Your task to perform on an android device: change timer sound Image 0: 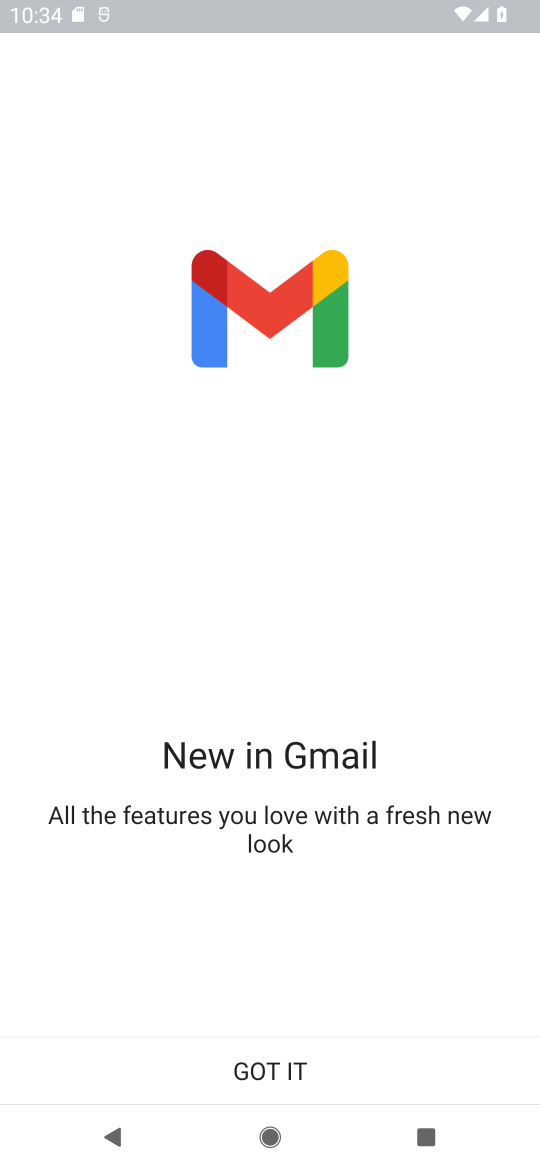
Step 0: press home button
Your task to perform on an android device: change timer sound Image 1: 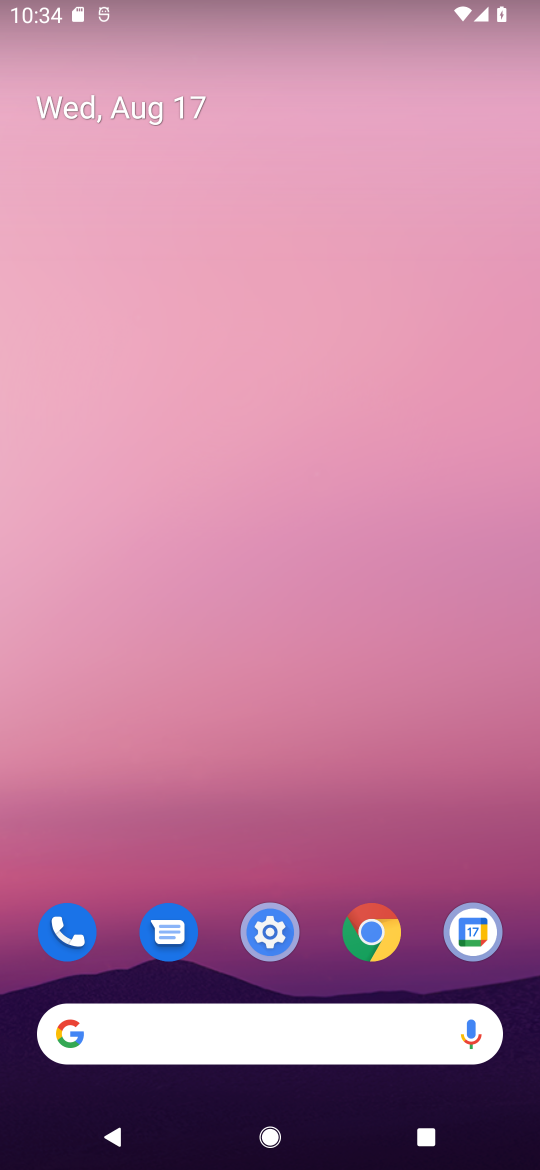
Step 1: drag from (316, 980) to (318, 211)
Your task to perform on an android device: change timer sound Image 2: 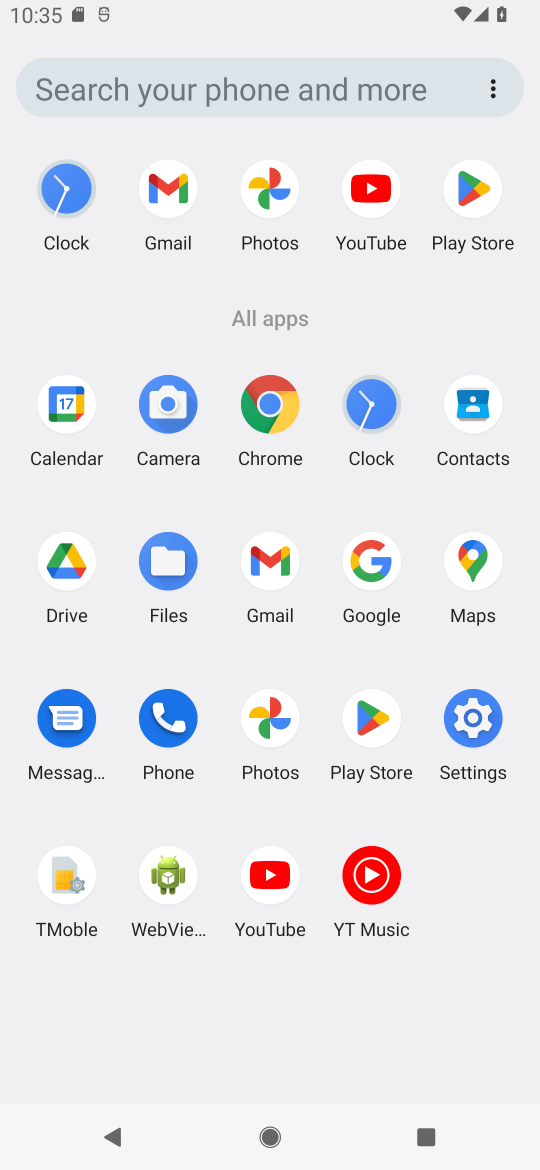
Step 2: click (363, 414)
Your task to perform on an android device: change timer sound Image 3: 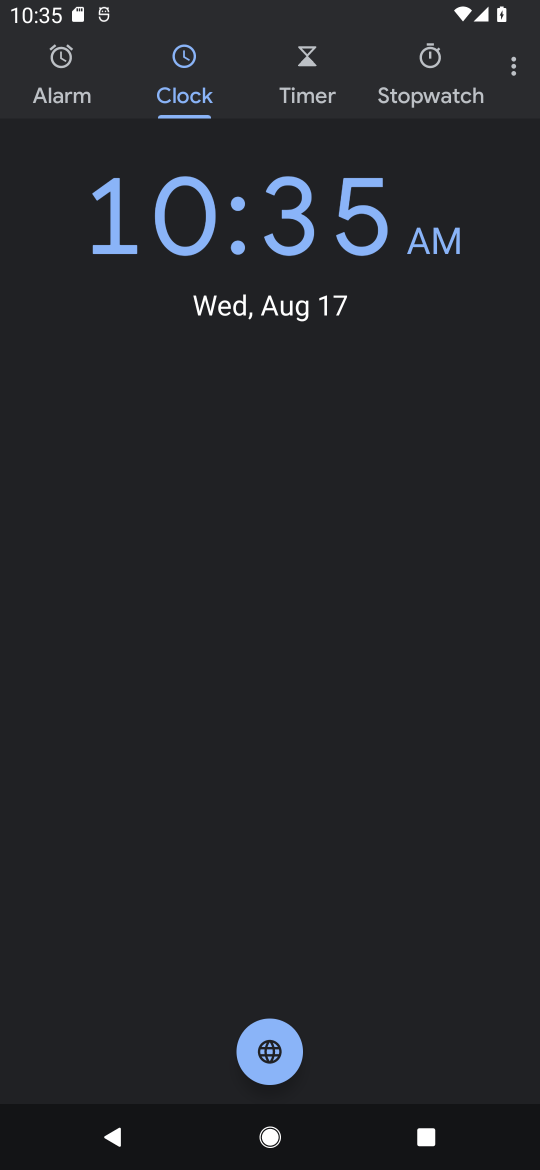
Step 3: click (516, 72)
Your task to perform on an android device: change timer sound Image 4: 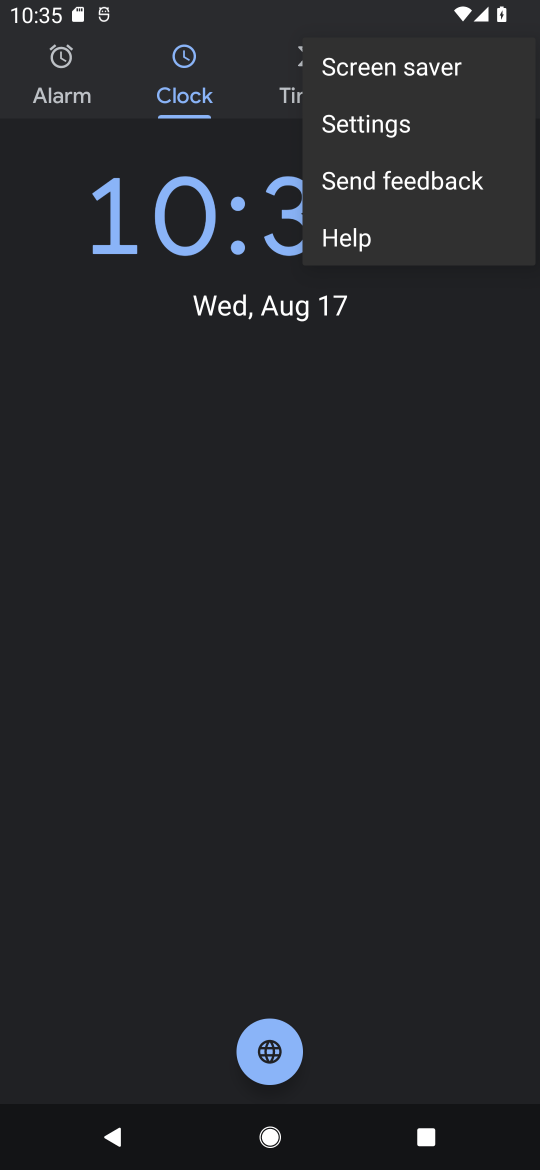
Step 4: click (375, 124)
Your task to perform on an android device: change timer sound Image 5: 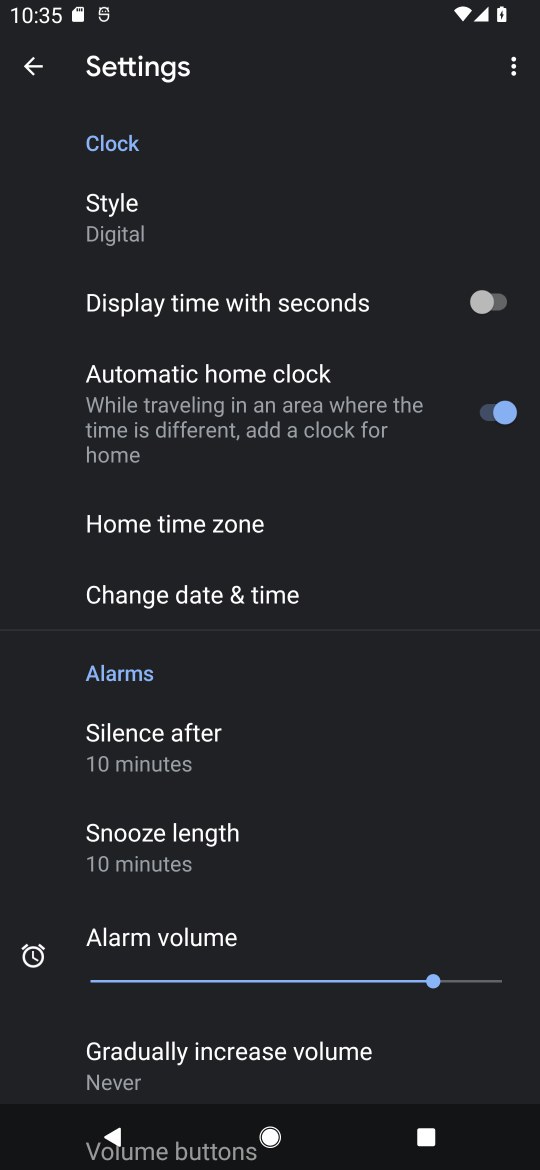
Step 5: drag from (182, 931) to (162, 245)
Your task to perform on an android device: change timer sound Image 6: 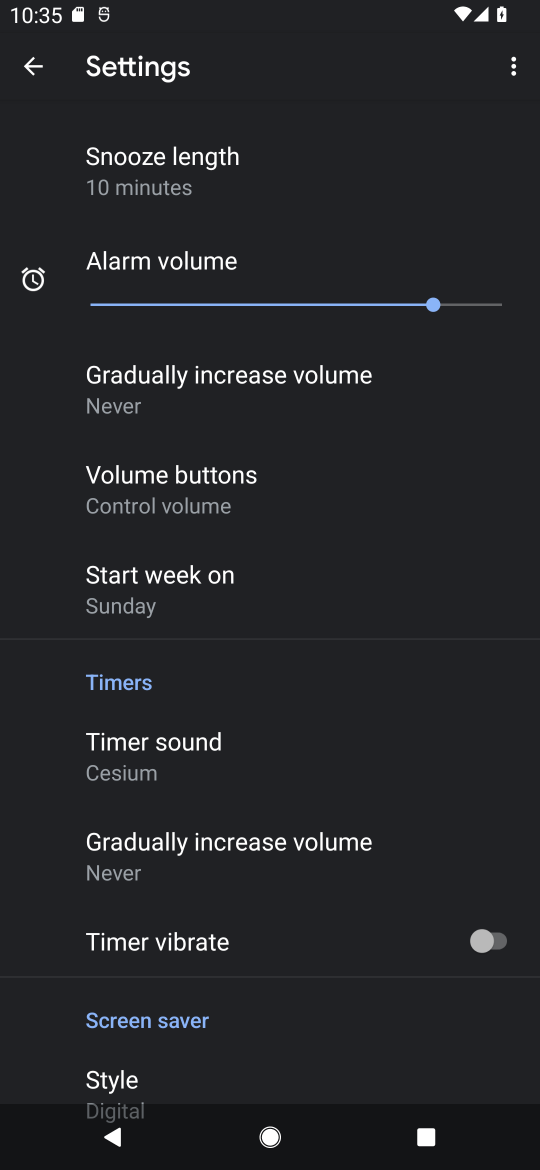
Step 6: click (166, 739)
Your task to perform on an android device: change timer sound Image 7: 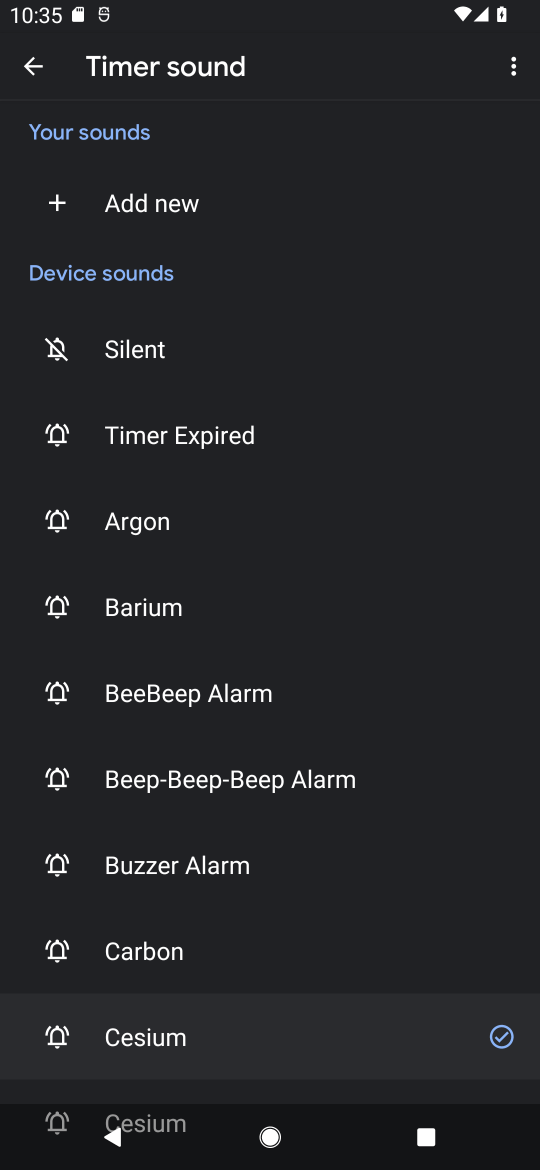
Step 7: click (131, 601)
Your task to perform on an android device: change timer sound Image 8: 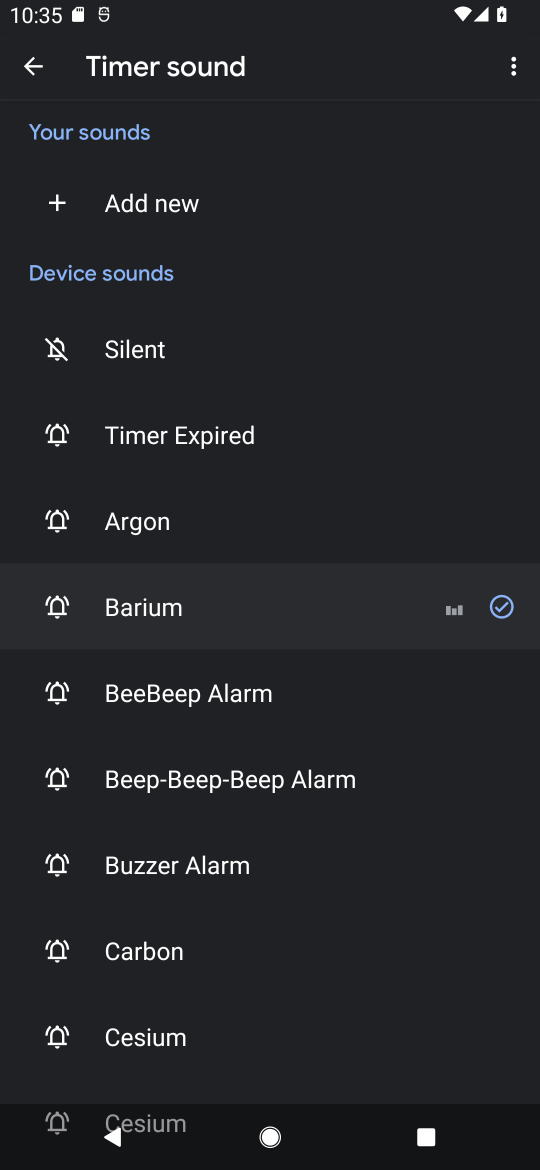
Step 8: task complete